Your task to perform on an android device: Show me popular games on the Play Store Image 0: 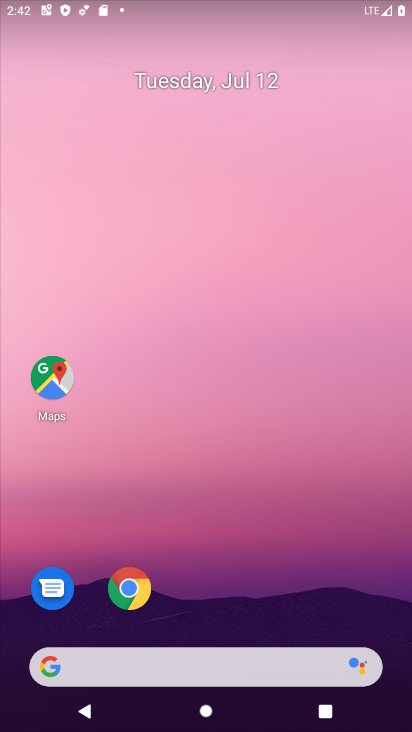
Step 0: drag from (238, 594) to (302, 85)
Your task to perform on an android device: Show me popular games on the Play Store Image 1: 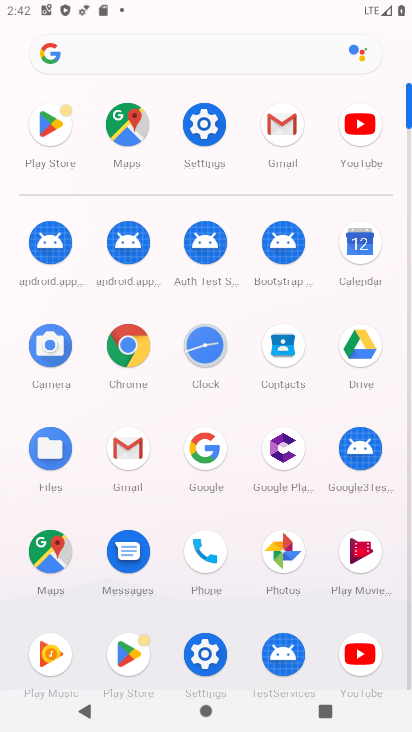
Step 1: click (67, 126)
Your task to perform on an android device: Show me popular games on the Play Store Image 2: 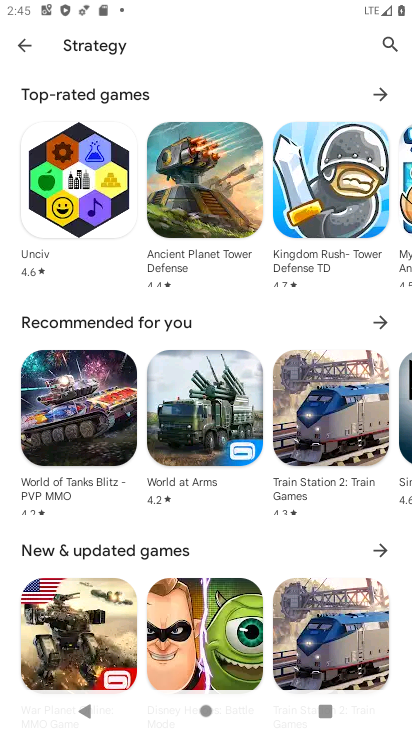
Step 2: click (29, 52)
Your task to perform on an android device: Show me popular games on the Play Store Image 3: 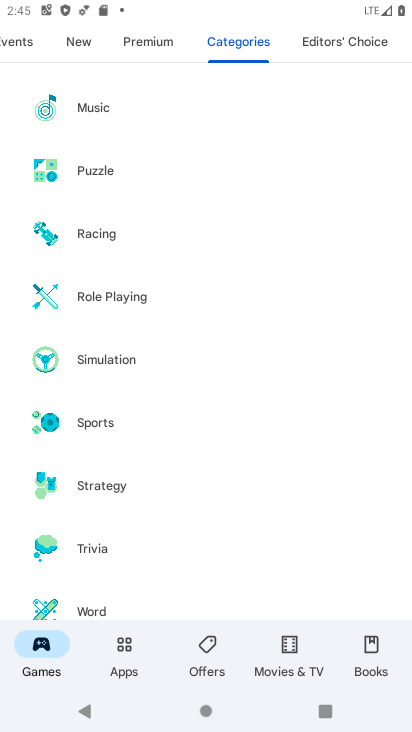
Step 3: drag from (228, 273) to (86, 728)
Your task to perform on an android device: Show me popular games on the Play Store Image 4: 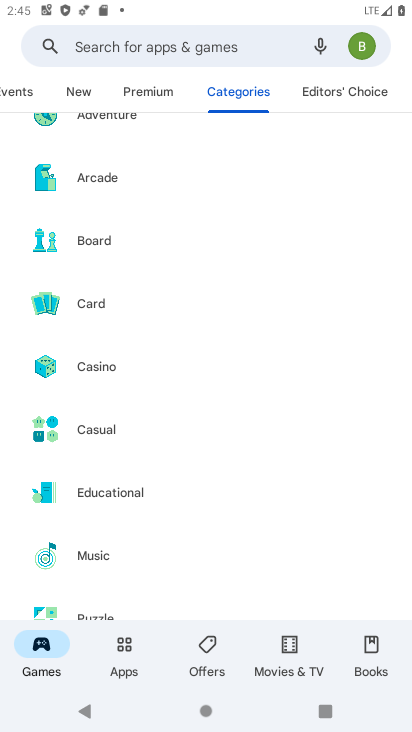
Step 4: click (45, 649)
Your task to perform on an android device: Show me popular games on the Play Store Image 5: 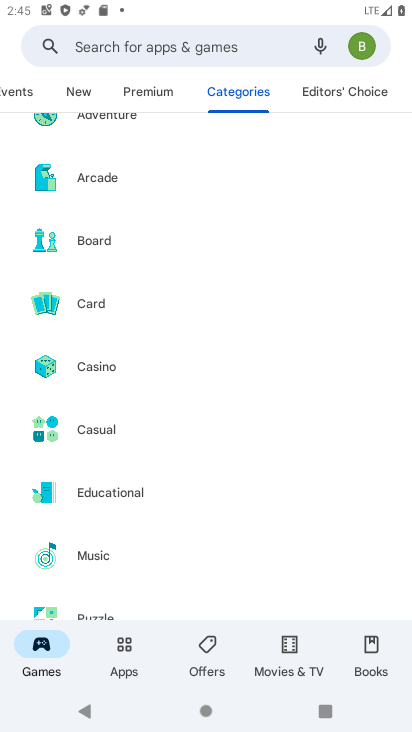
Step 5: drag from (32, 94) to (316, 164)
Your task to perform on an android device: Show me popular games on the Play Store Image 6: 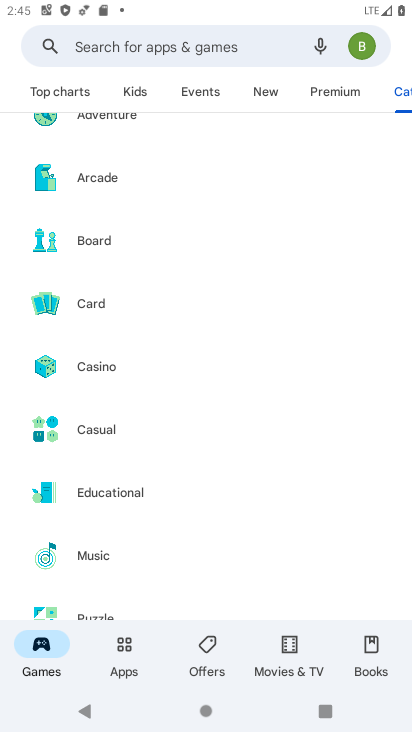
Step 6: click (78, 90)
Your task to perform on an android device: Show me popular games on the Play Store Image 7: 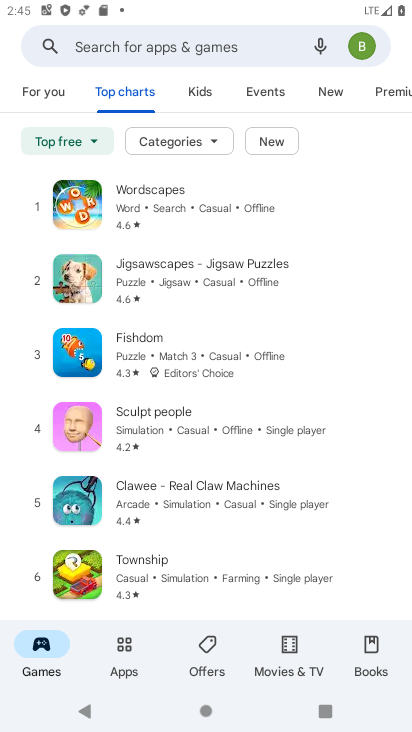
Step 7: task complete